Your task to perform on an android device: see sites visited before in the chrome app Image 0: 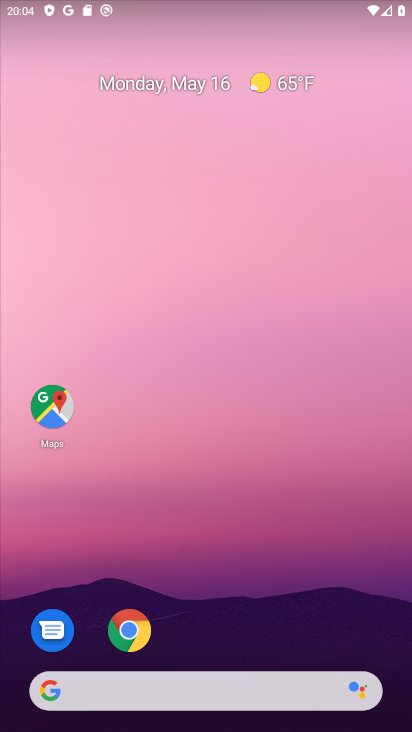
Step 0: click (137, 634)
Your task to perform on an android device: see sites visited before in the chrome app Image 1: 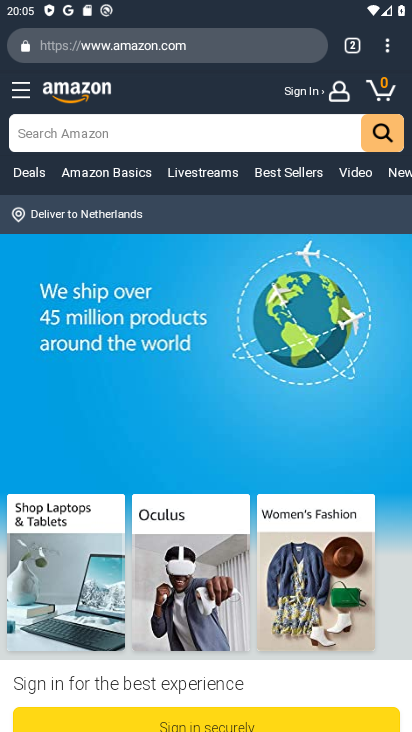
Step 1: task complete